Your task to perform on an android device: Open internet settings Image 0: 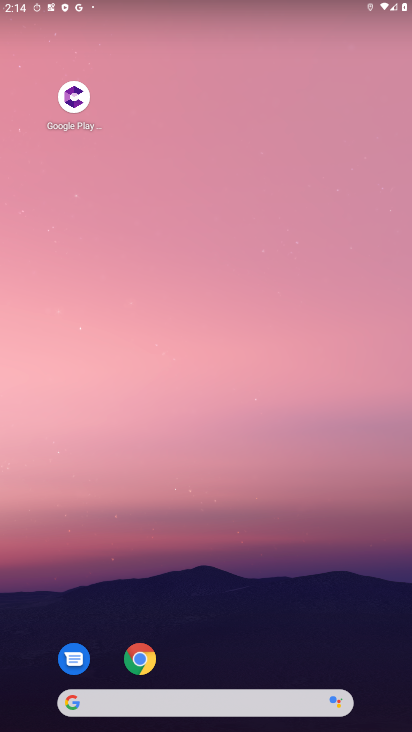
Step 0: drag from (235, 530) to (216, 29)
Your task to perform on an android device: Open internet settings Image 1: 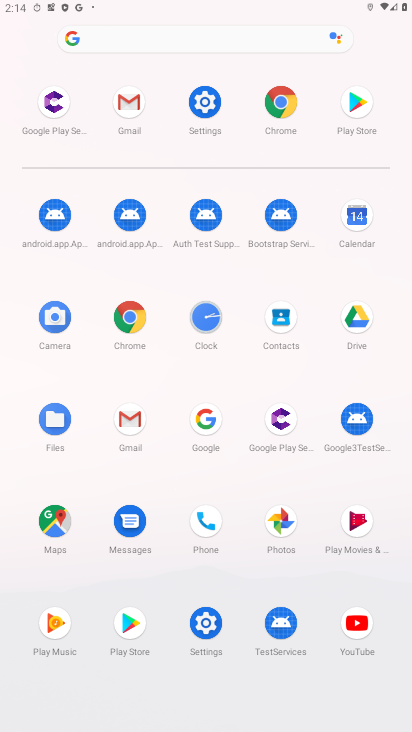
Step 1: click (205, 94)
Your task to perform on an android device: Open internet settings Image 2: 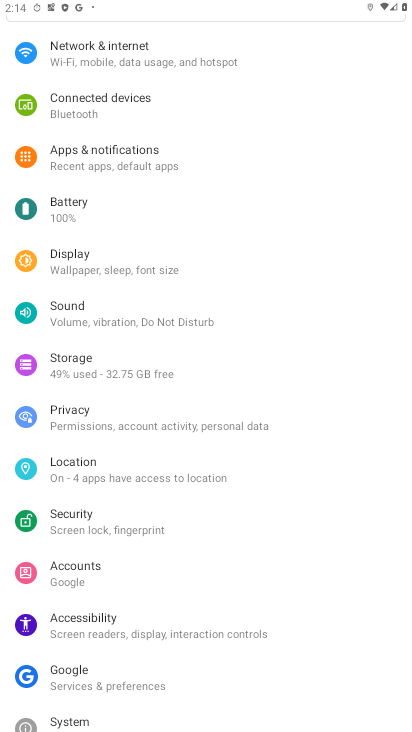
Step 2: drag from (335, 154) to (199, 550)
Your task to perform on an android device: Open internet settings Image 3: 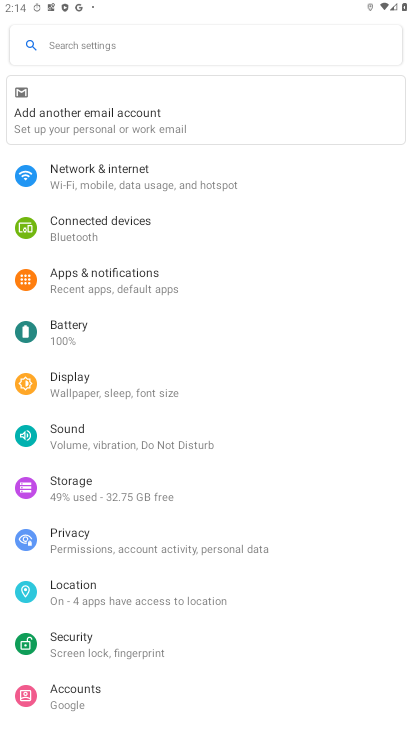
Step 3: click (95, 187)
Your task to perform on an android device: Open internet settings Image 4: 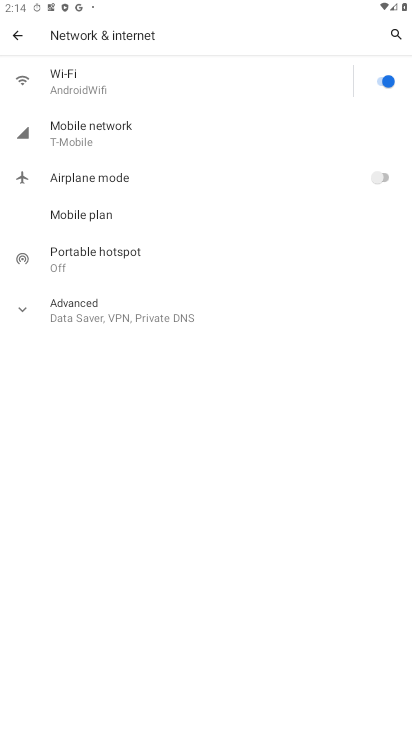
Step 4: click (104, 147)
Your task to perform on an android device: Open internet settings Image 5: 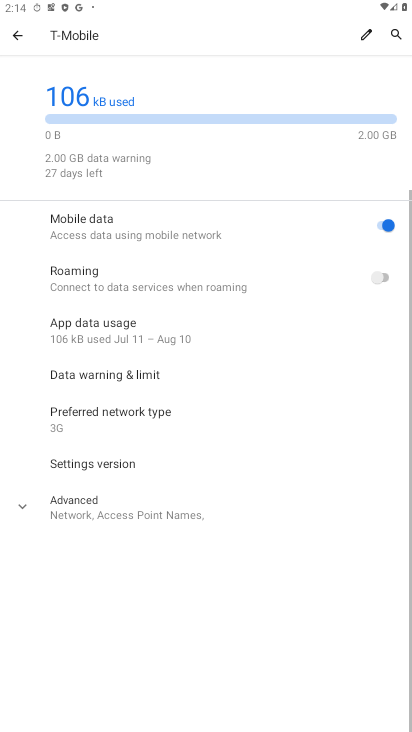
Step 5: task complete